Your task to perform on an android device: toggle javascript in the chrome app Image 0: 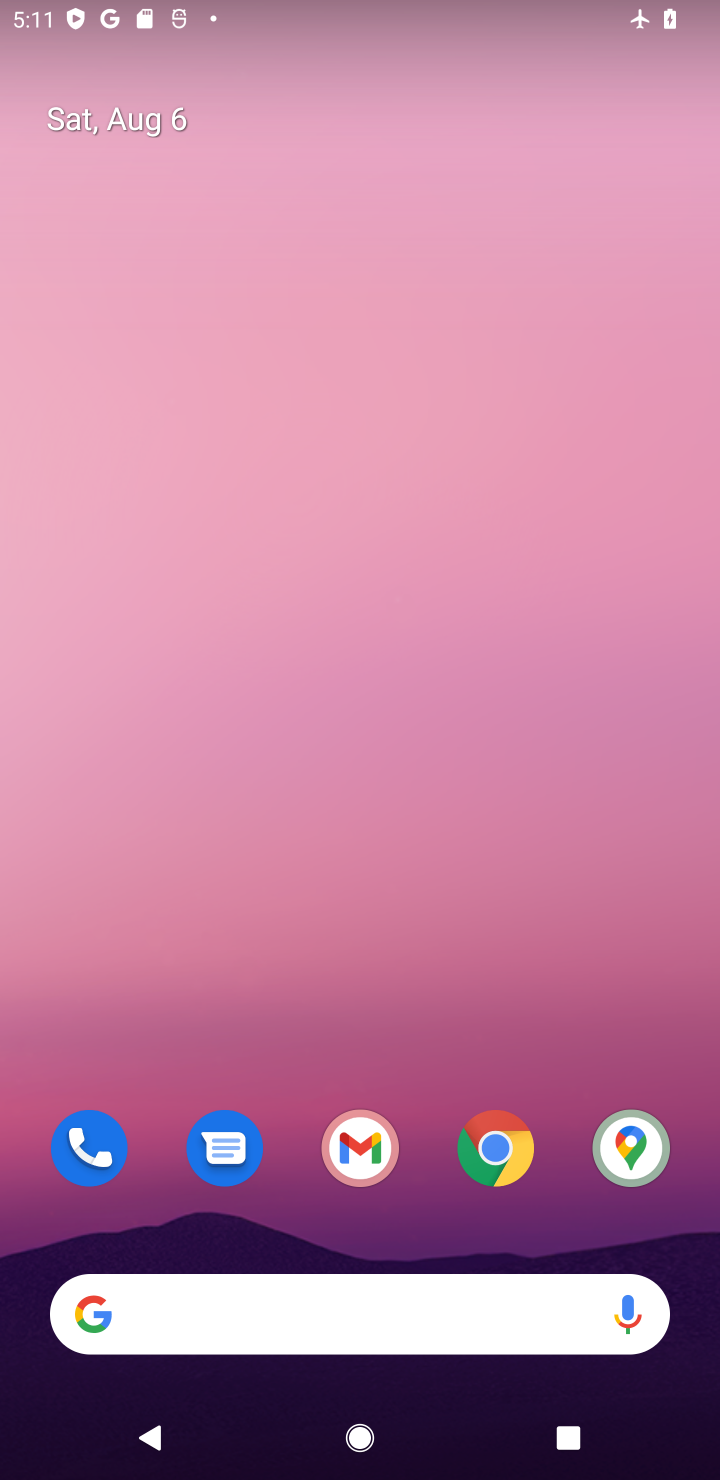
Step 0: click (515, 1145)
Your task to perform on an android device: toggle javascript in the chrome app Image 1: 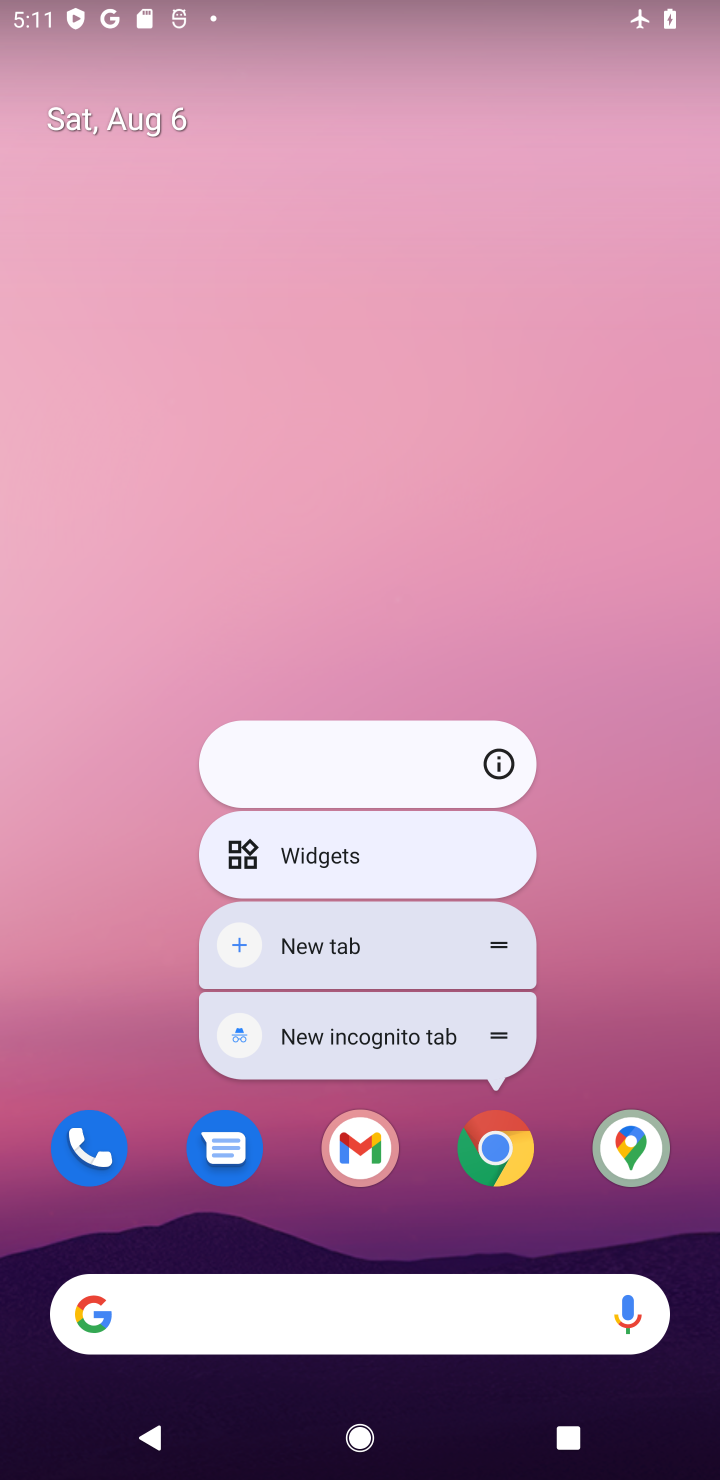
Step 1: click (517, 1138)
Your task to perform on an android device: toggle javascript in the chrome app Image 2: 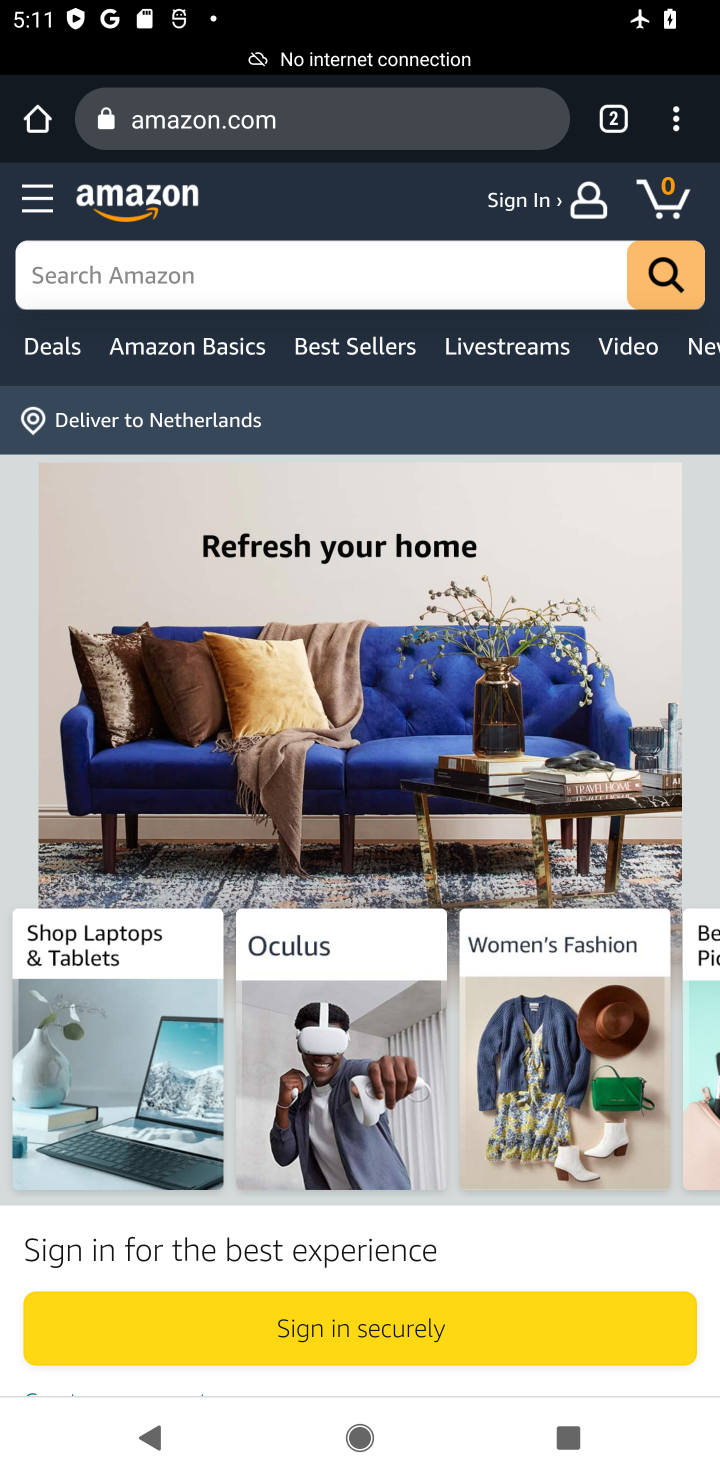
Step 2: drag from (667, 104) to (455, 1082)
Your task to perform on an android device: toggle javascript in the chrome app Image 3: 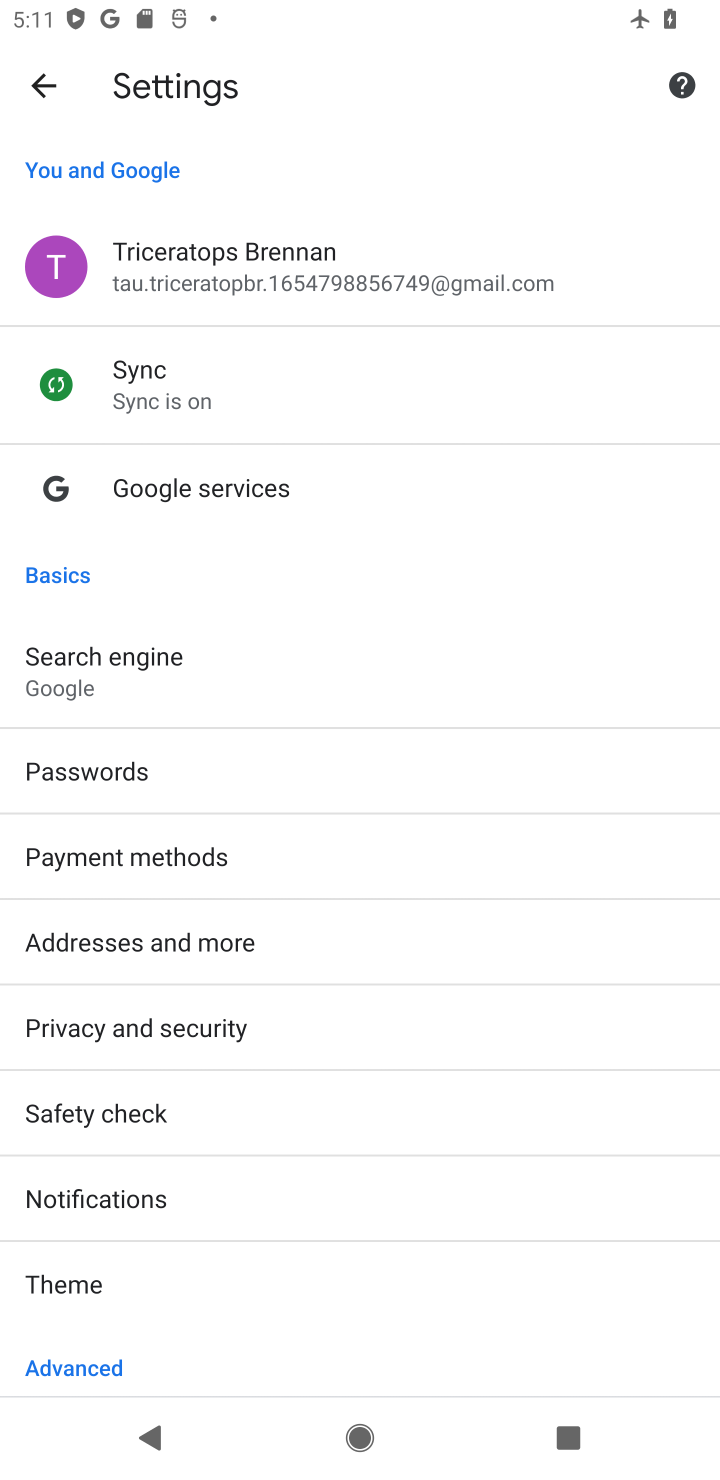
Step 3: drag from (227, 1185) to (256, 107)
Your task to perform on an android device: toggle javascript in the chrome app Image 4: 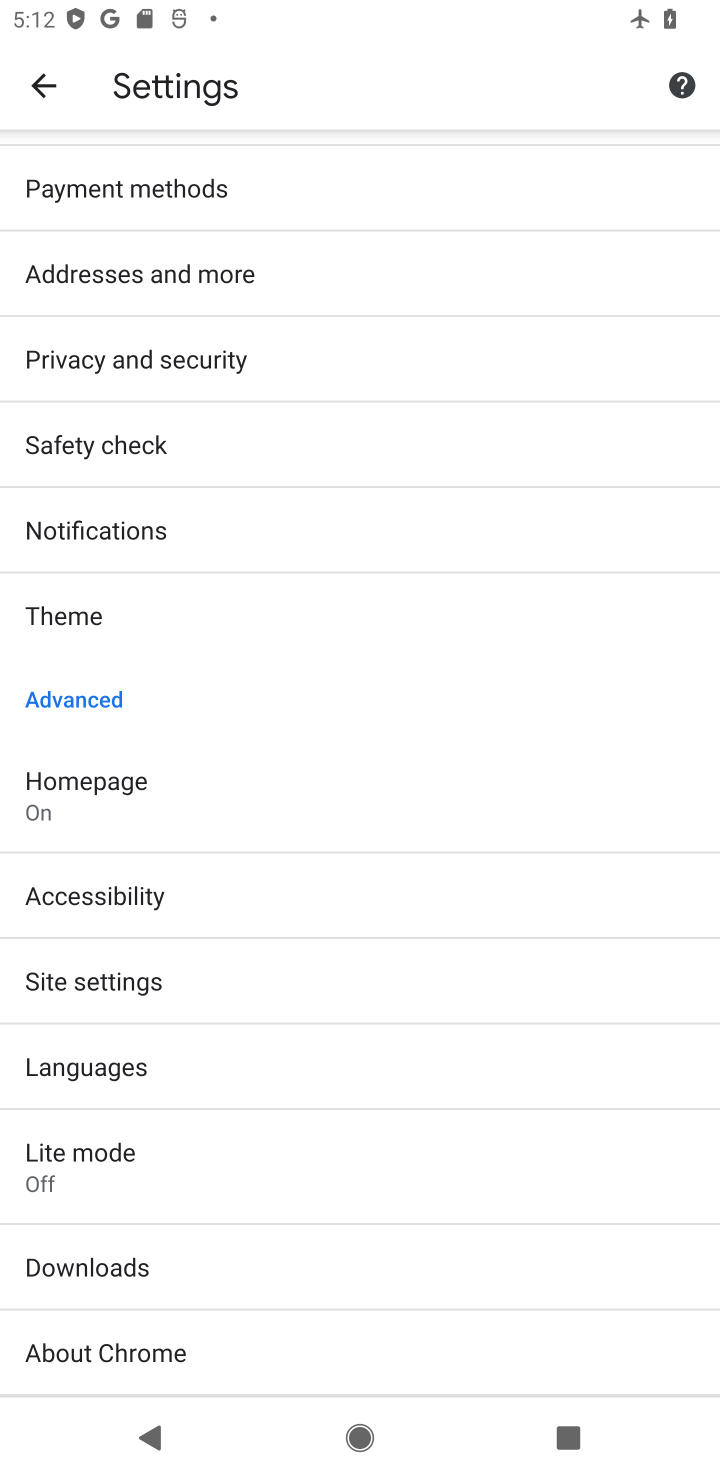
Step 4: click (79, 978)
Your task to perform on an android device: toggle javascript in the chrome app Image 5: 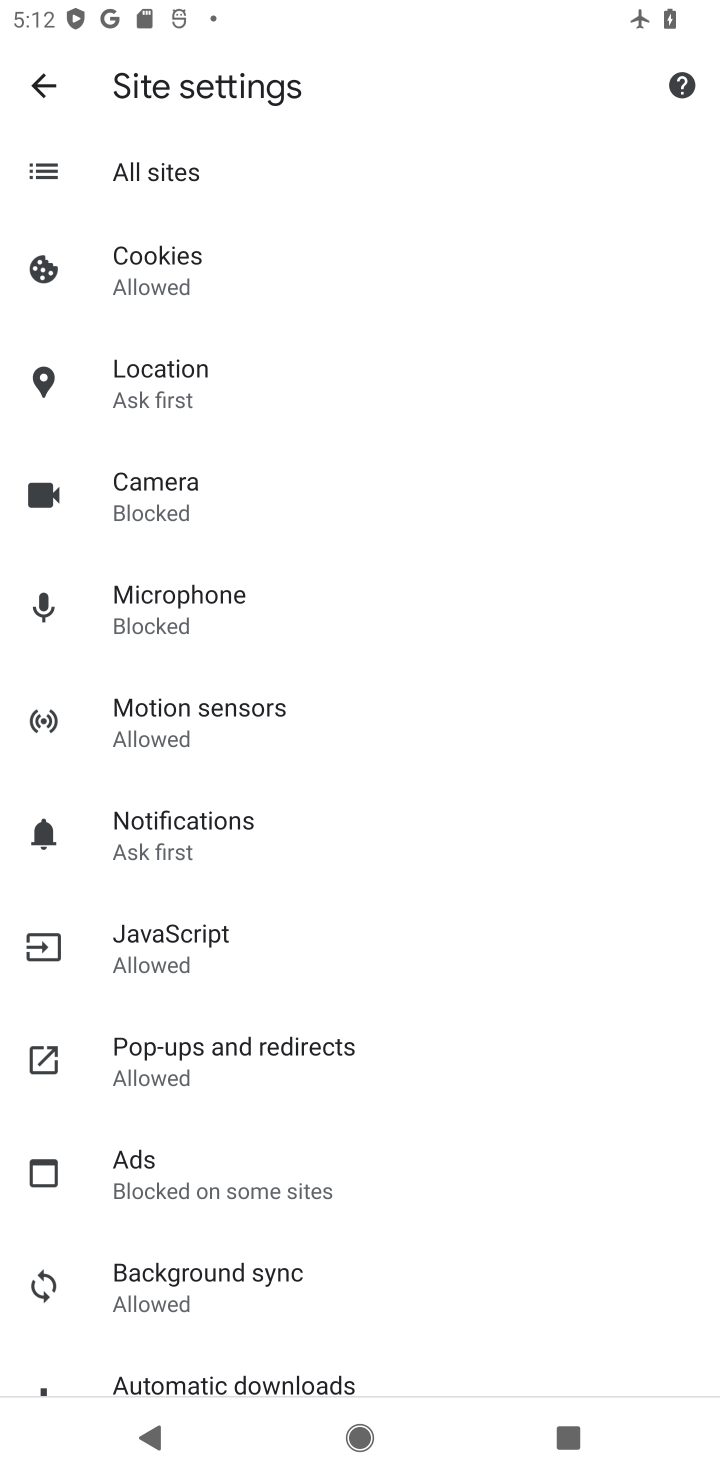
Step 5: click (153, 943)
Your task to perform on an android device: toggle javascript in the chrome app Image 6: 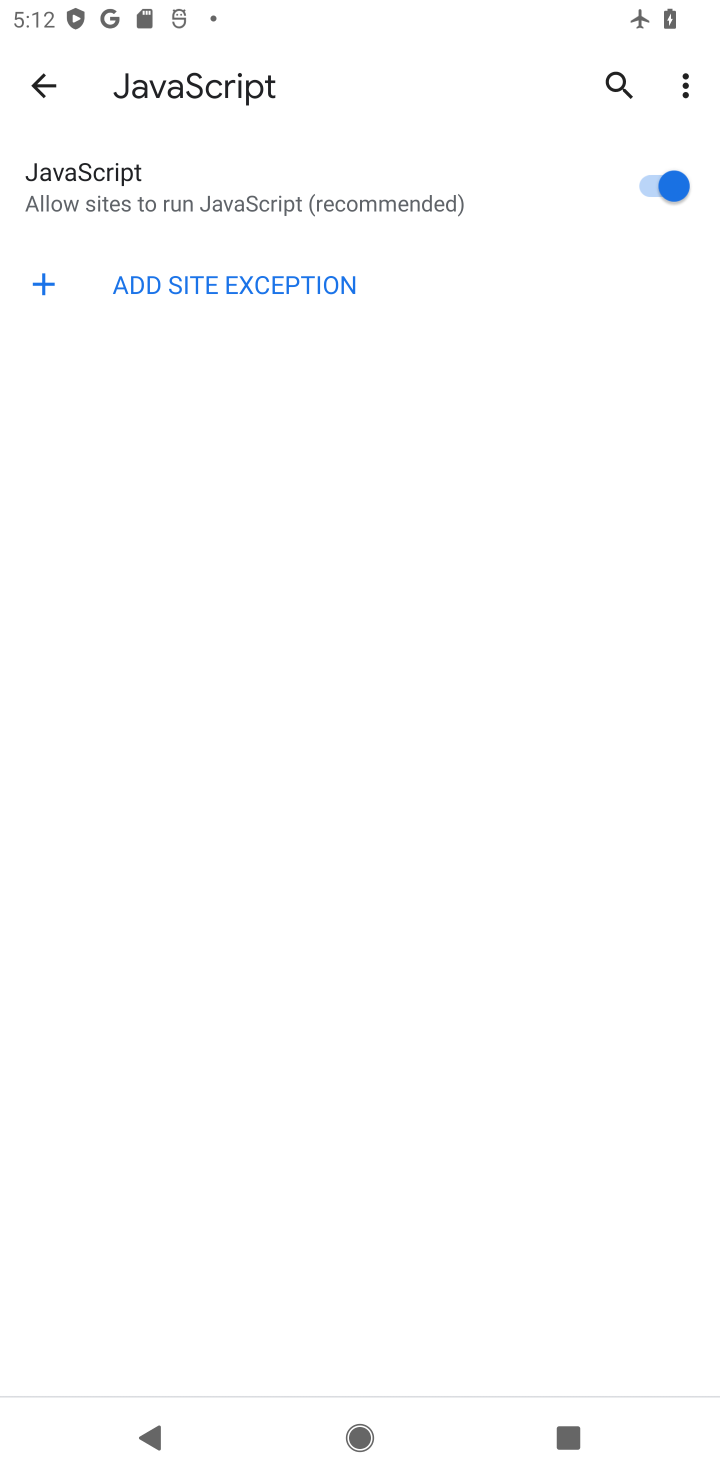
Step 6: click (653, 152)
Your task to perform on an android device: toggle javascript in the chrome app Image 7: 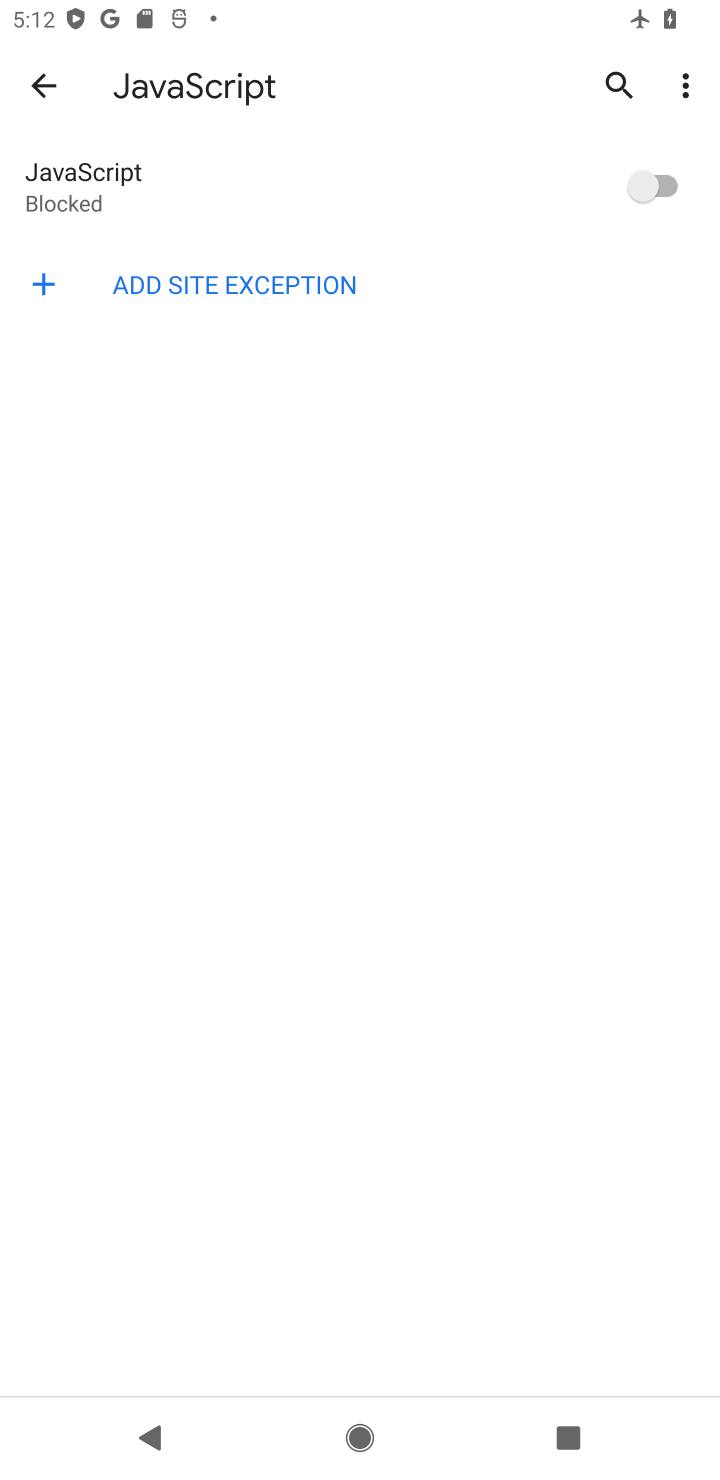
Step 7: task complete